Your task to perform on an android device: Search for razer thresher on costco.com, select the first entry, and add it to the cart. Image 0: 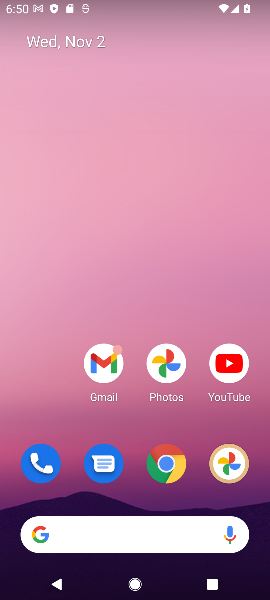
Step 0: click (158, 473)
Your task to perform on an android device: Search for razer thresher on costco.com, select the first entry, and add it to the cart. Image 1: 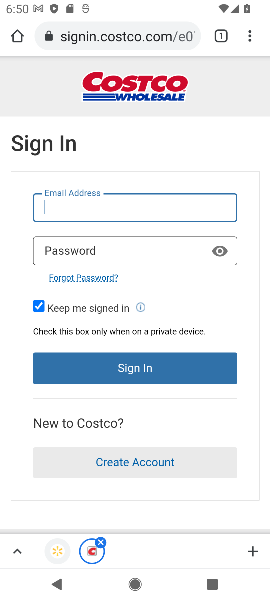
Step 1: click (88, 35)
Your task to perform on an android device: Search for razer thresher on costco.com, select the first entry, and add it to the cart. Image 2: 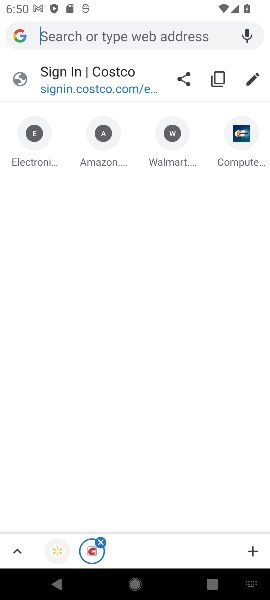
Step 2: press back button
Your task to perform on an android device: Search for razer thresher on costco.com, select the first entry, and add it to the cart. Image 3: 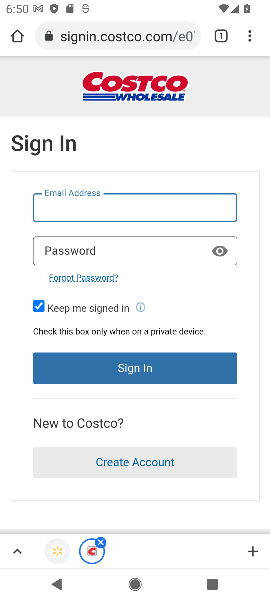
Step 3: press back button
Your task to perform on an android device: Search for razer thresher on costco.com, select the first entry, and add it to the cart. Image 4: 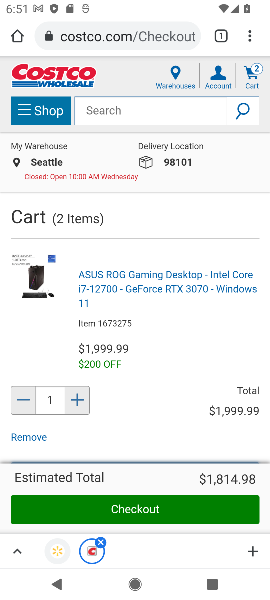
Step 4: click (92, 114)
Your task to perform on an android device: Search for razer thresher on costco.com, select the first entry, and add it to the cart. Image 5: 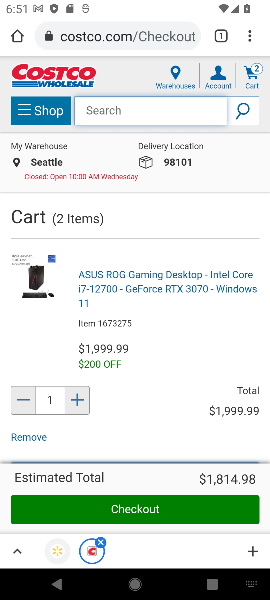
Step 5: type "razer thresher"
Your task to perform on an android device: Search for razer thresher on costco.com, select the first entry, and add it to the cart. Image 6: 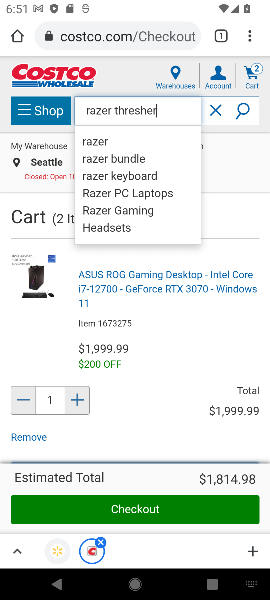
Step 6: click (239, 114)
Your task to perform on an android device: Search for razer thresher on costco.com, select the first entry, and add it to the cart. Image 7: 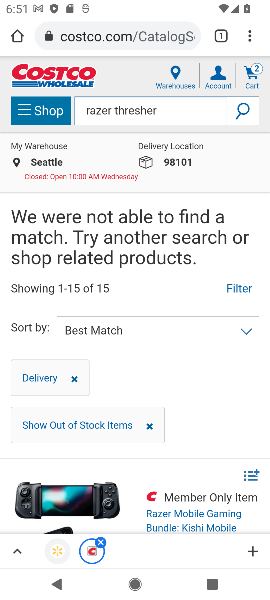
Step 7: task complete